Your task to perform on an android device: turn off picture-in-picture Image 0: 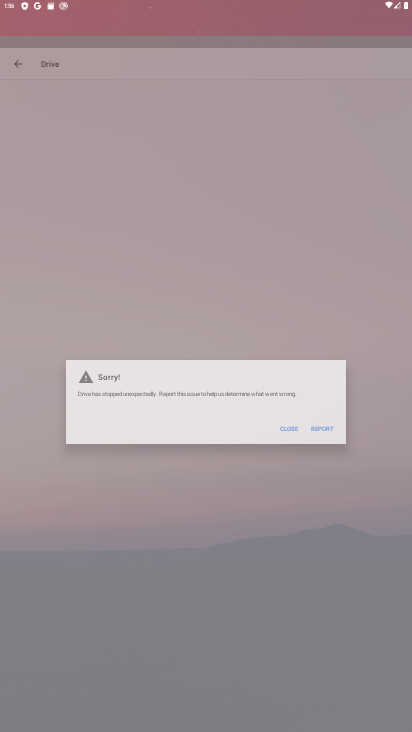
Step 0: click (270, 499)
Your task to perform on an android device: turn off picture-in-picture Image 1: 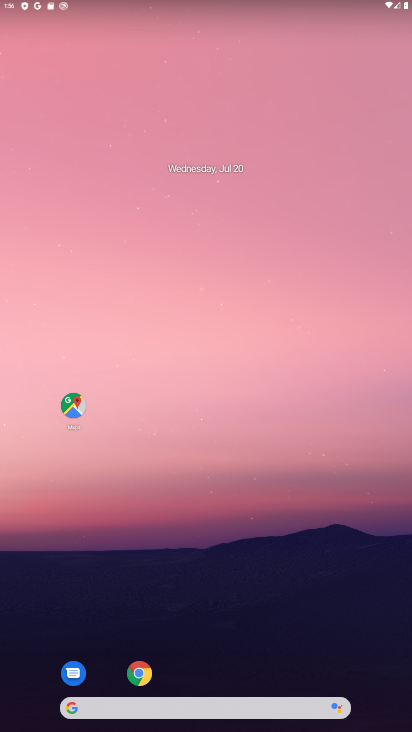
Step 1: drag from (215, 648) to (252, 242)
Your task to perform on an android device: turn off picture-in-picture Image 2: 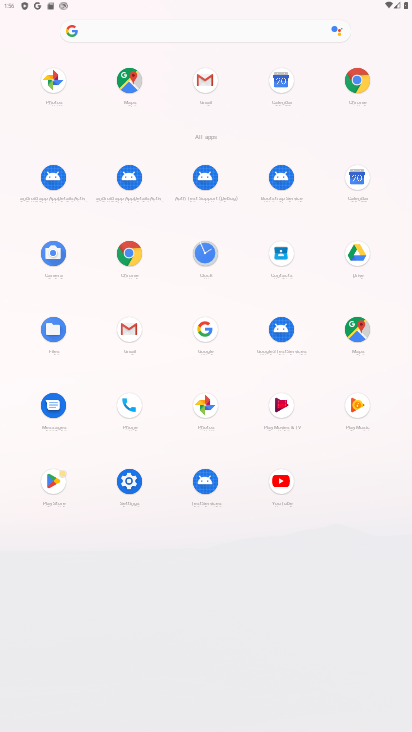
Step 2: click (122, 488)
Your task to perform on an android device: turn off picture-in-picture Image 3: 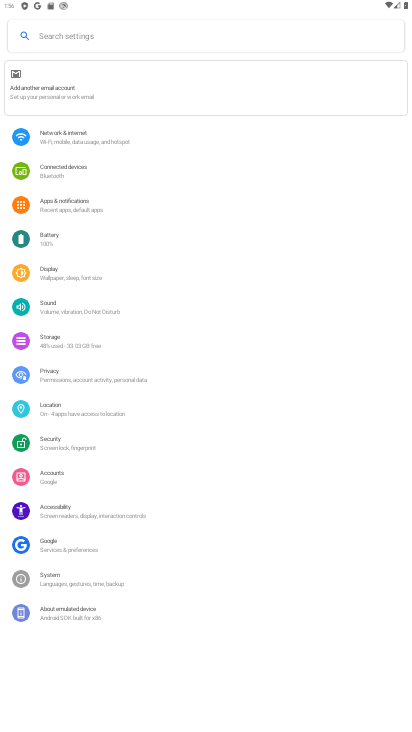
Step 3: click (85, 196)
Your task to perform on an android device: turn off picture-in-picture Image 4: 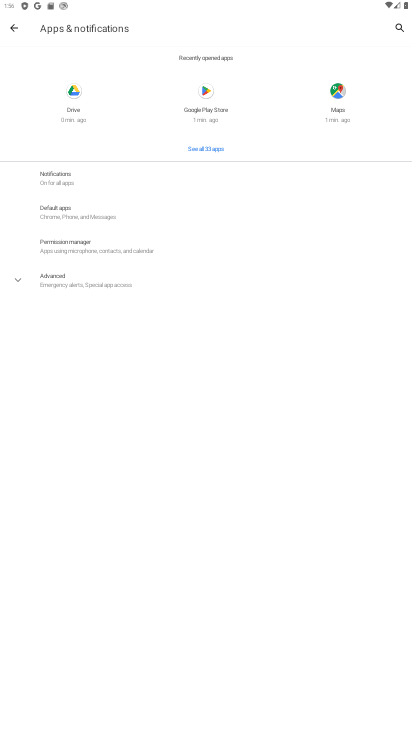
Step 4: click (71, 288)
Your task to perform on an android device: turn off picture-in-picture Image 5: 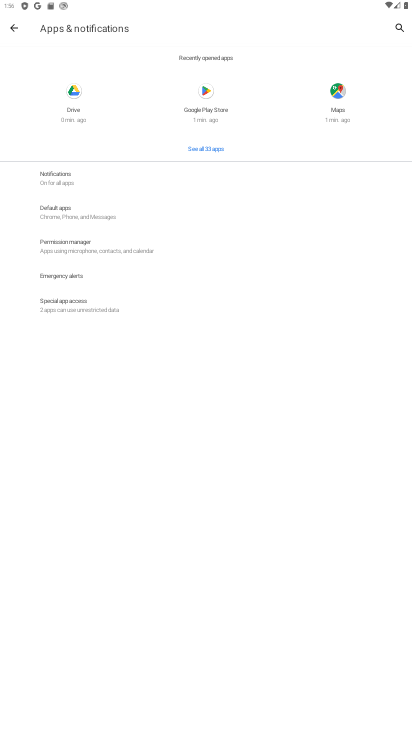
Step 5: click (95, 300)
Your task to perform on an android device: turn off picture-in-picture Image 6: 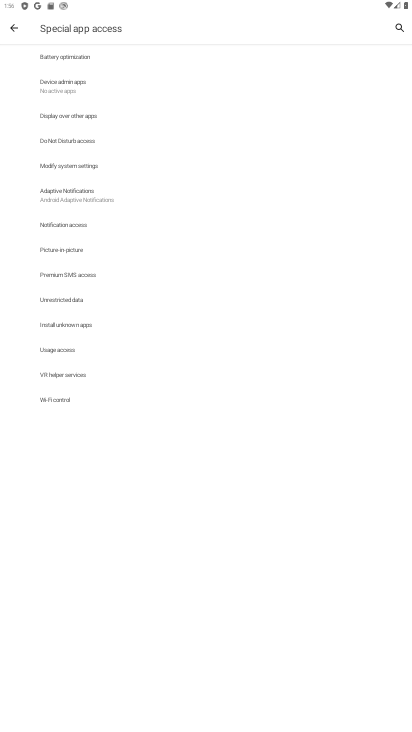
Step 6: click (94, 242)
Your task to perform on an android device: turn off picture-in-picture Image 7: 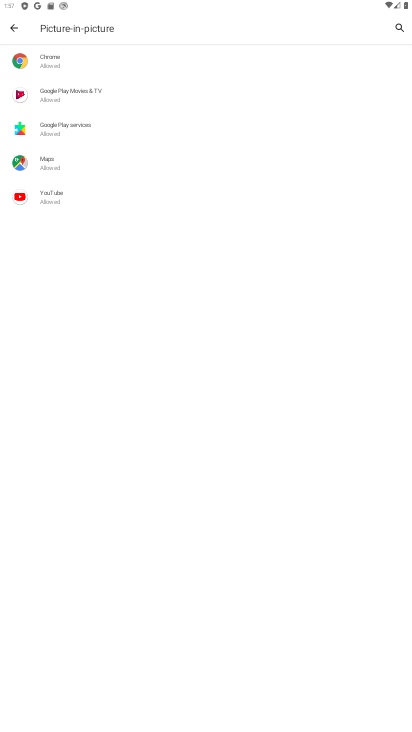
Step 7: click (142, 65)
Your task to perform on an android device: turn off picture-in-picture Image 8: 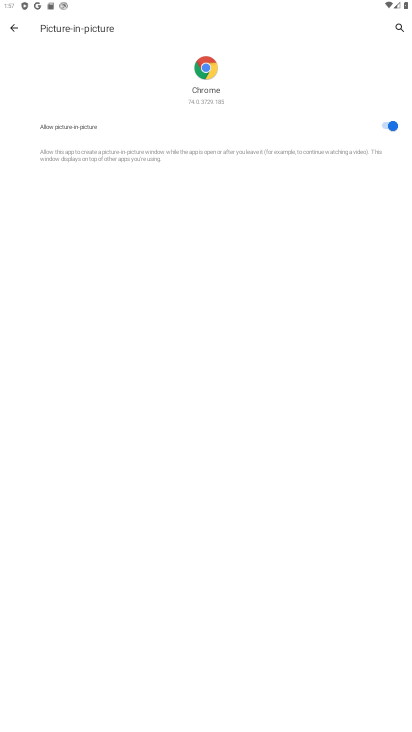
Step 8: drag from (198, 347) to (209, 307)
Your task to perform on an android device: turn off picture-in-picture Image 9: 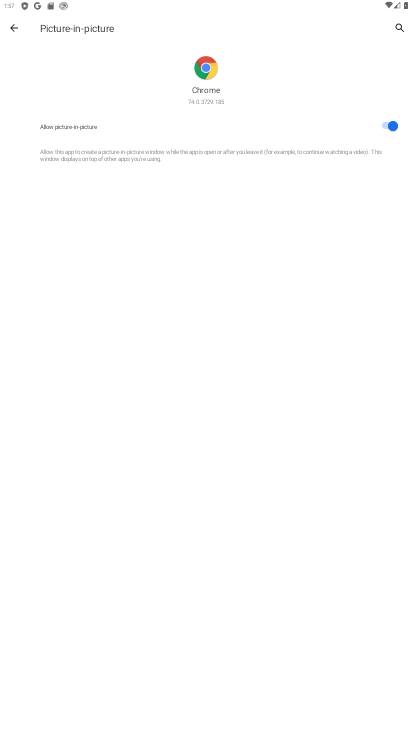
Step 9: drag from (169, 465) to (293, 220)
Your task to perform on an android device: turn off picture-in-picture Image 10: 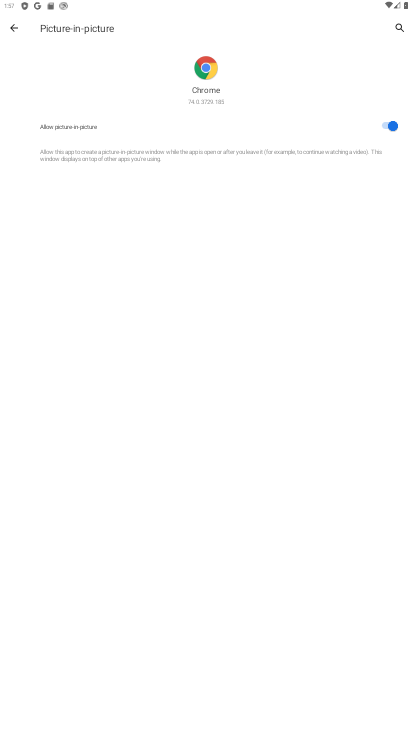
Step 10: click (384, 133)
Your task to perform on an android device: turn off picture-in-picture Image 11: 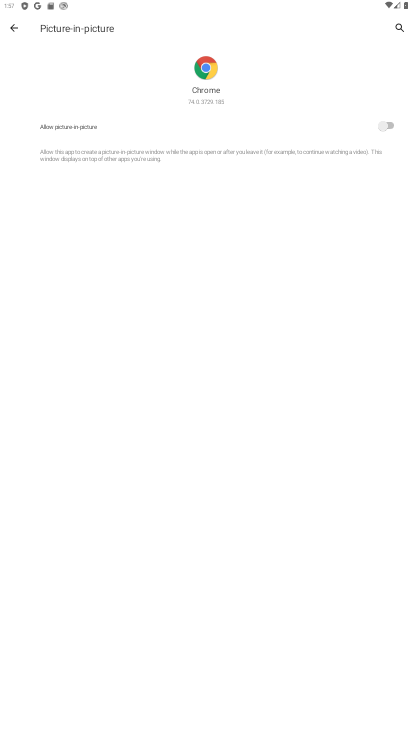
Step 11: task complete